Your task to perform on an android device: Clear the cart on target.com. Search for "razer kraken" on target.com, select the first entry, and add it to the cart. Image 0: 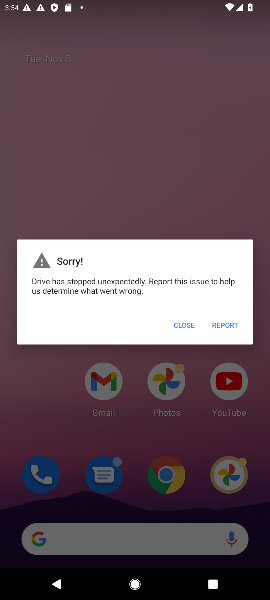
Step 0: click (180, 330)
Your task to perform on an android device: Clear the cart on target.com. Search for "razer kraken" on target.com, select the first entry, and add it to the cart. Image 1: 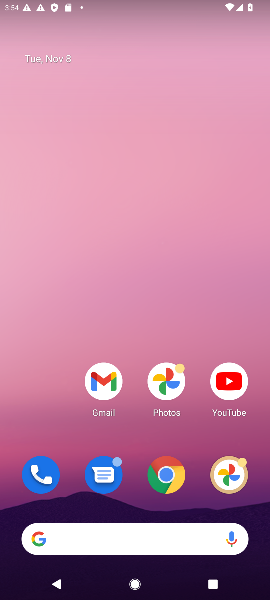
Step 1: drag from (93, 498) to (159, 39)
Your task to perform on an android device: Clear the cart on target.com. Search for "razer kraken" on target.com, select the first entry, and add it to the cart. Image 2: 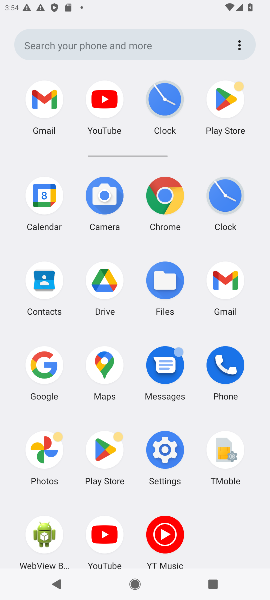
Step 2: click (34, 357)
Your task to perform on an android device: Clear the cart on target.com. Search for "razer kraken" on target.com, select the first entry, and add it to the cart. Image 3: 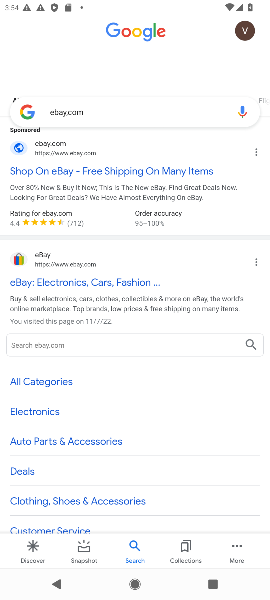
Step 3: click (124, 102)
Your task to perform on an android device: Clear the cart on target.com. Search for "razer kraken" on target.com, select the first entry, and add it to the cart. Image 4: 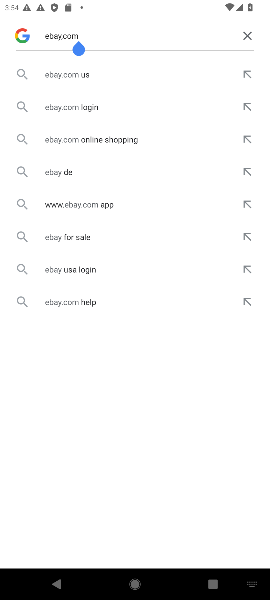
Step 4: click (250, 34)
Your task to perform on an android device: Clear the cart on target.com. Search for "razer kraken" on target.com, select the first entry, and add it to the cart. Image 5: 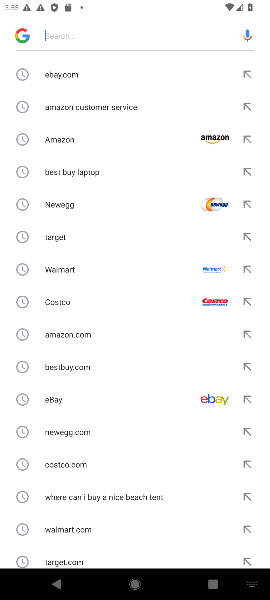
Step 5: click (70, 234)
Your task to perform on an android device: Clear the cart on target.com. Search for "razer kraken" on target.com, select the first entry, and add it to the cart. Image 6: 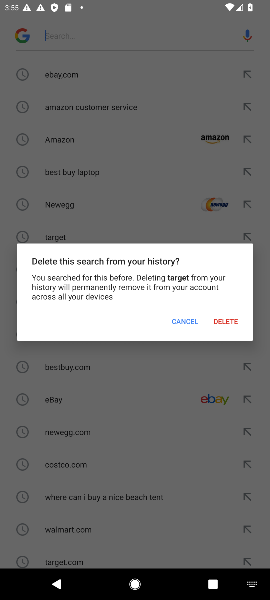
Step 6: click (178, 325)
Your task to perform on an android device: Clear the cart on target.com. Search for "razer kraken" on target.com, select the first entry, and add it to the cart. Image 7: 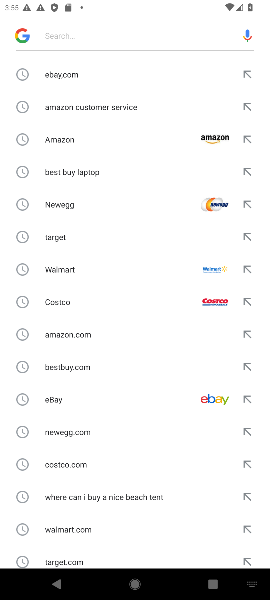
Step 7: click (122, 36)
Your task to perform on an android device: Clear the cart on target.com. Search for "razer kraken" on target.com, select the first entry, and add it to the cart. Image 8: 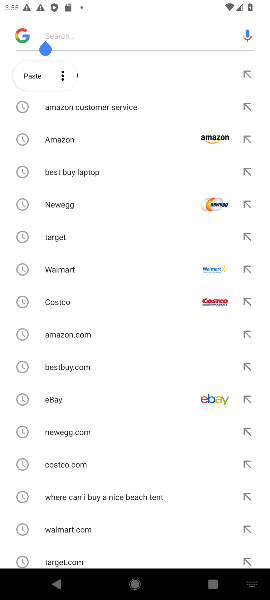
Step 8: type "target "
Your task to perform on an android device: Clear the cart on target.com. Search for "razer kraken" on target.com, select the first entry, and add it to the cart. Image 9: 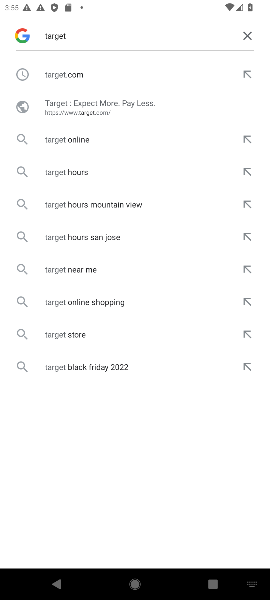
Step 9: click (52, 77)
Your task to perform on an android device: Clear the cart on target.com. Search for "razer kraken" on target.com, select the first entry, and add it to the cart. Image 10: 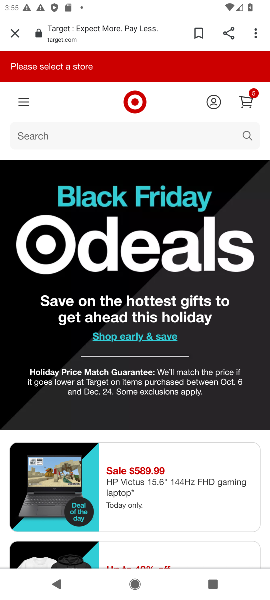
Step 10: click (132, 125)
Your task to perform on an android device: Clear the cart on target.com. Search for "razer kraken" on target.com, select the first entry, and add it to the cart. Image 11: 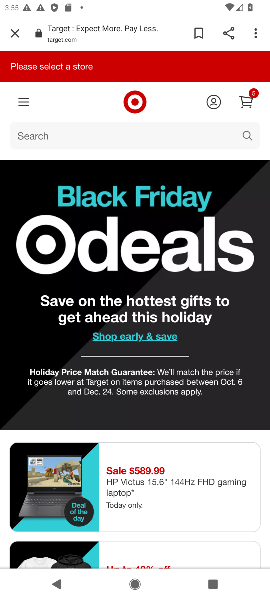
Step 11: click (132, 129)
Your task to perform on an android device: Clear the cart on target.com. Search for "razer kraken" on target.com, select the first entry, and add it to the cart. Image 12: 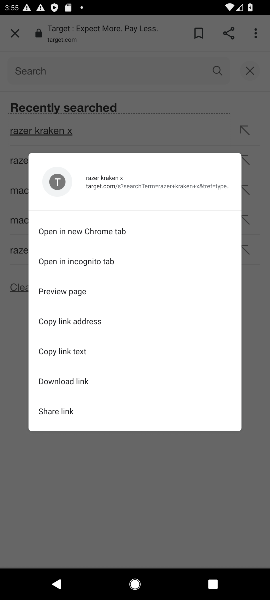
Step 12: click (79, 73)
Your task to perform on an android device: Clear the cart on target.com. Search for "razer kraken" on target.com, select the first entry, and add it to the cart. Image 13: 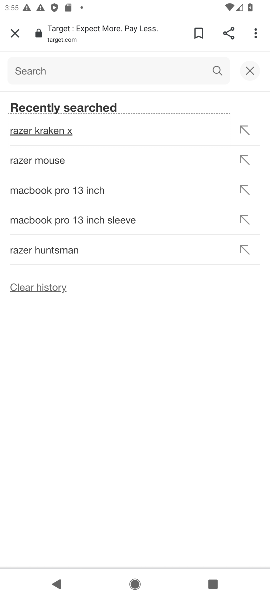
Step 13: click (52, 136)
Your task to perform on an android device: Clear the cart on target.com. Search for "razer kraken" on target.com, select the first entry, and add it to the cart. Image 14: 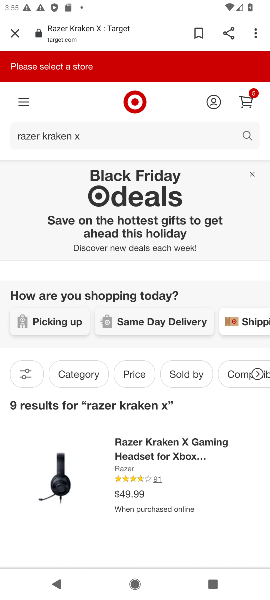
Step 14: drag from (99, 466) to (142, 230)
Your task to perform on an android device: Clear the cart on target.com. Search for "razer kraken" on target.com, select the first entry, and add it to the cart. Image 15: 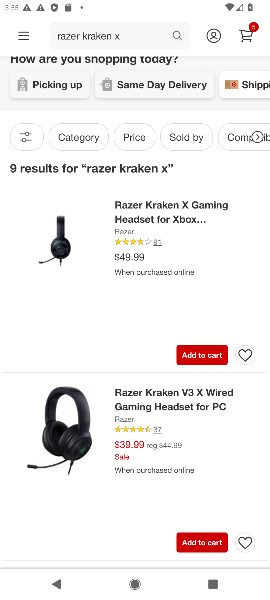
Step 15: click (192, 355)
Your task to perform on an android device: Clear the cart on target.com. Search for "razer kraken" on target.com, select the first entry, and add it to the cart. Image 16: 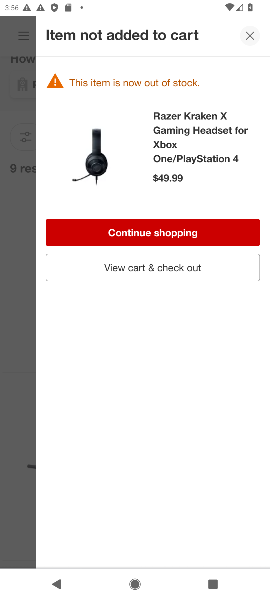
Step 16: task complete